Your task to perform on an android device: turn on priority inbox in the gmail app Image 0: 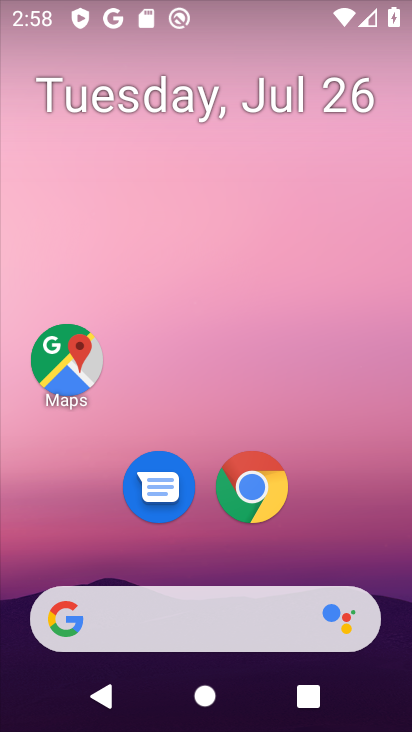
Step 0: drag from (161, 551) to (231, 24)
Your task to perform on an android device: turn on priority inbox in the gmail app Image 1: 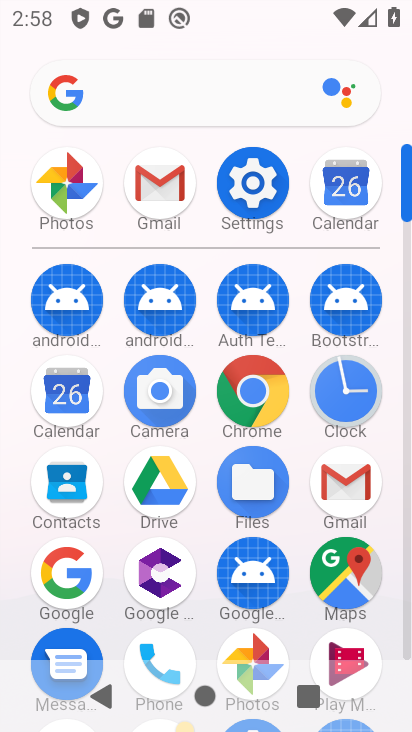
Step 1: click (179, 187)
Your task to perform on an android device: turn on priority inbox in the gmail app Image 2: 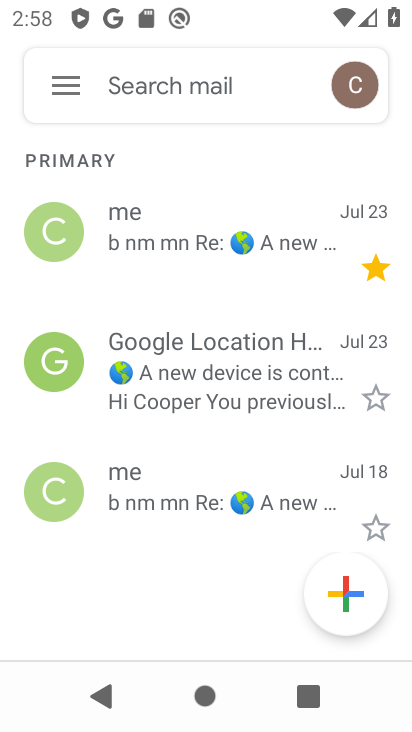
Step 2: click (67, 82)
Your task to perform on an android device: turn on priority inbox in the gmail app Image 3: 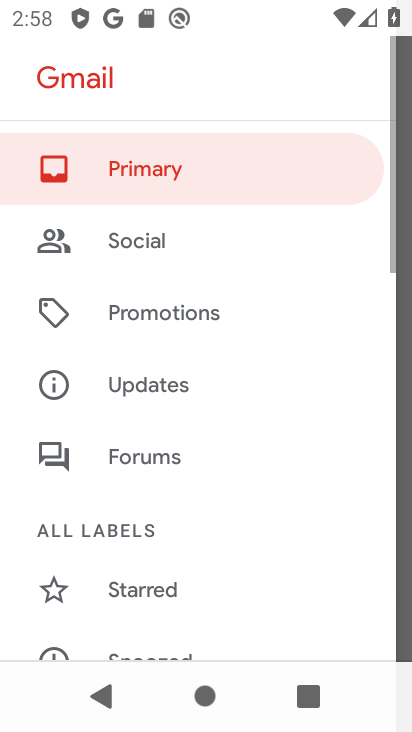
Step 3: drag from (159, 582) to (287, 0)
Your task to perform on an android device: turn on priority inbox in the gmail app Image 4: 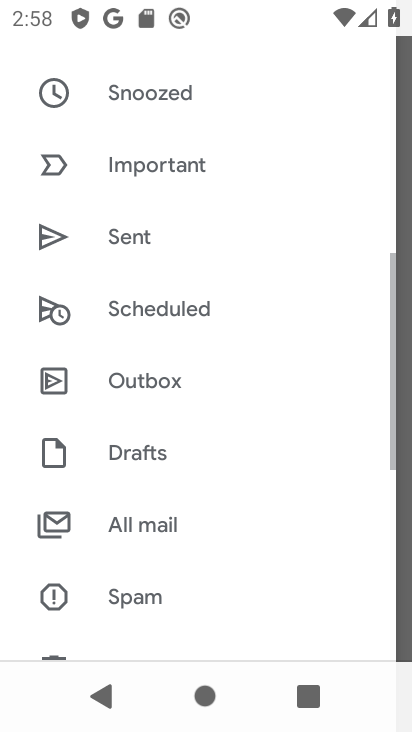
Step 4: drag from (210, 583) to (329, 0)
Your task to perform on an android device: turn on priority inbox in the gmail app Image 5: 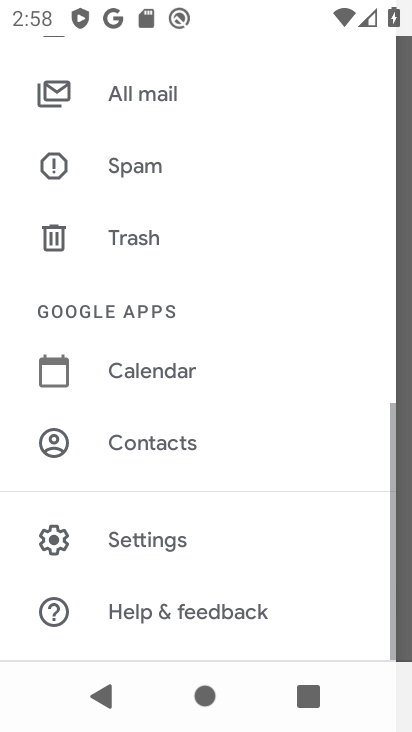
Step 5: click (137, 546)
Your task to perform on an android device: turn on priority inbox in the gmail app Image 6: 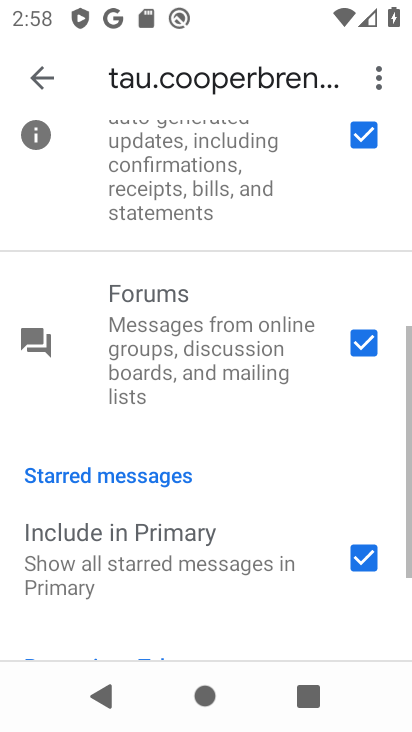
Step 6: drag from (234, 152) to (146, 731)
Your task to perform on an android device: turn on priority inbox in the gmail app Image 7: 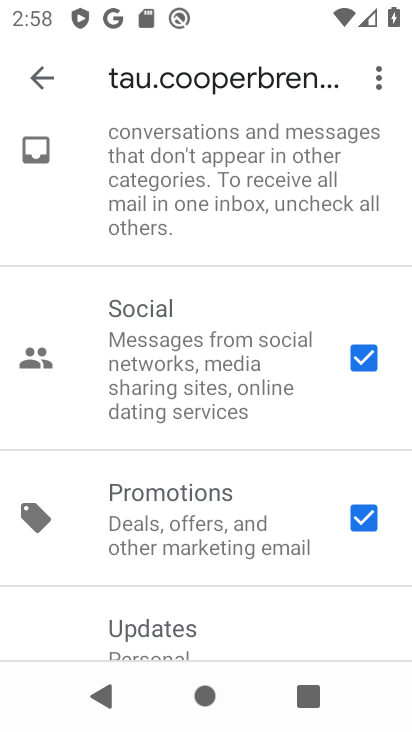
Step 7: drag from (204, 147) to (113, 713)
Your task to perform on an android device: turn on priority inbox in the gmail app Image 8: 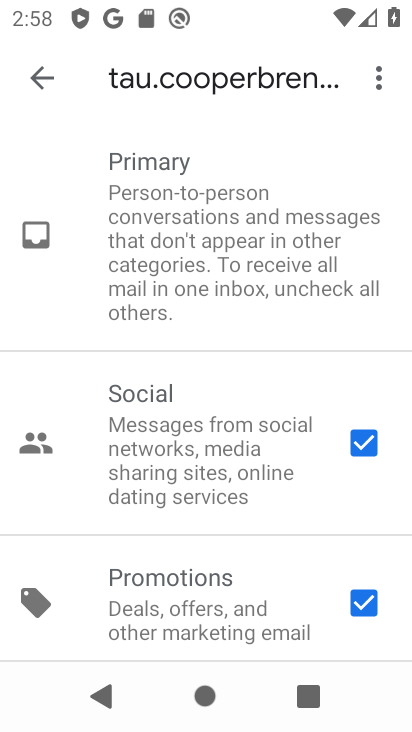
Step 8: click (31, 91)
Your task to perform on an android device: turn on priority inbox in the gmail app Image 9: 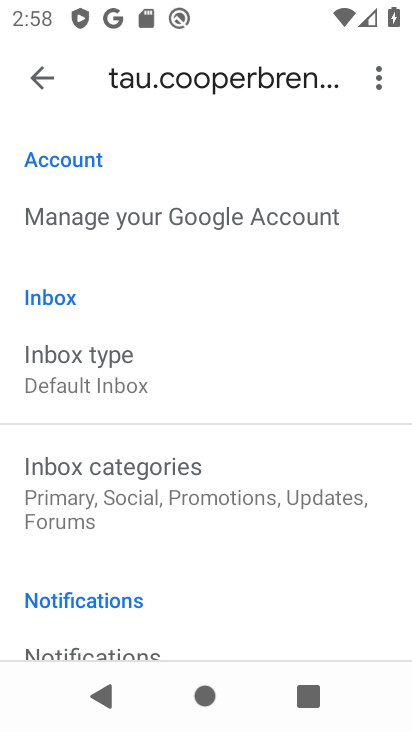
Step 9: click (130, 366)
Your task to perform on an android device: turn on priority inbox in the gmail app Image 10: 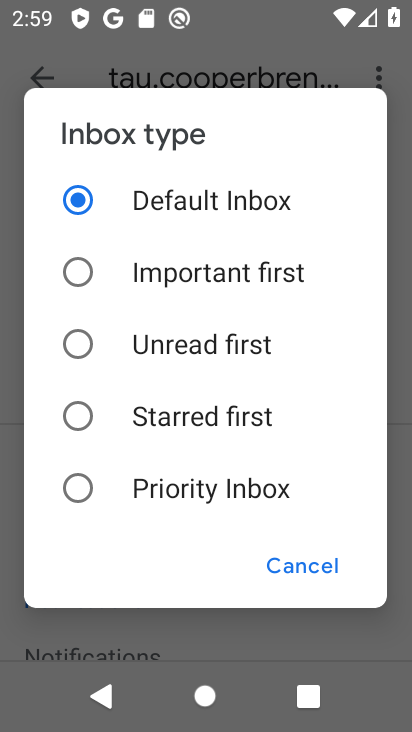
Step 10: click (76, 496)
Your task to perform on an android device: turn on priority inbox in the gmail app Image 11: 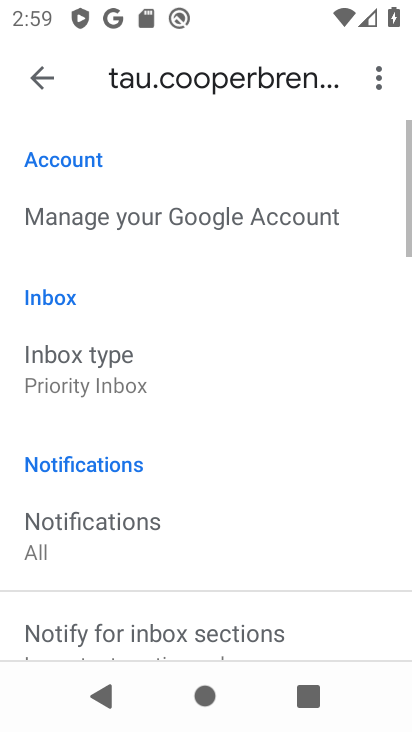
Step 11: task complete